Your task to perform on an android device: Go to battery settings Image 0: 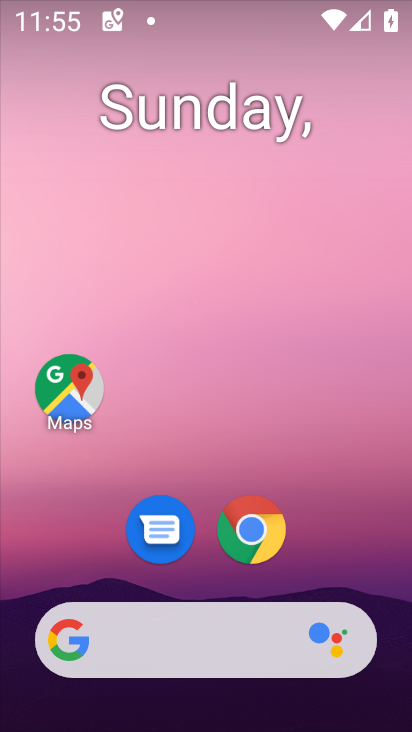
Step 0: drag from (388, 585) to (376, 268)
Your task to perform on an android device: Go to battery settings Image 1: 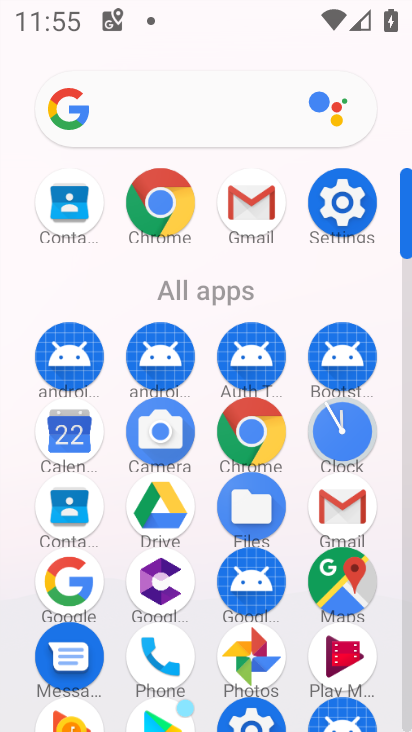
Step 1: click (363, 215)
Your task to perform on an android device: Go to battery settings Image 2: 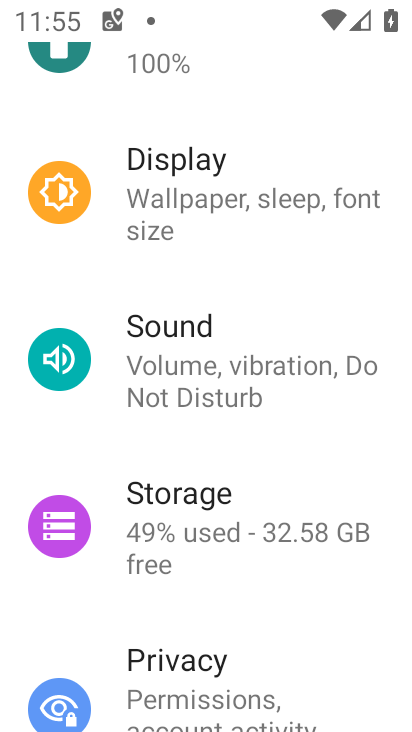
Step 2: drag from (365, 280) to (355, 403)
Your task to perform on an android device: Go to battery settings Image 3: 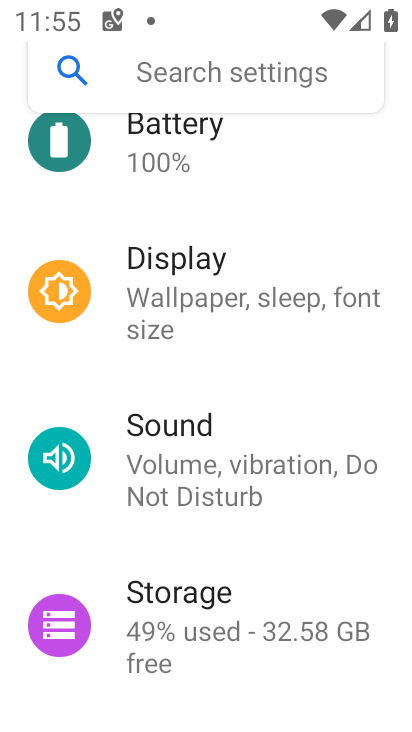
Step 3: drag from (372, 345) to (358, 450)
Your task to perform on an android device: Go to battery settings Image 4: 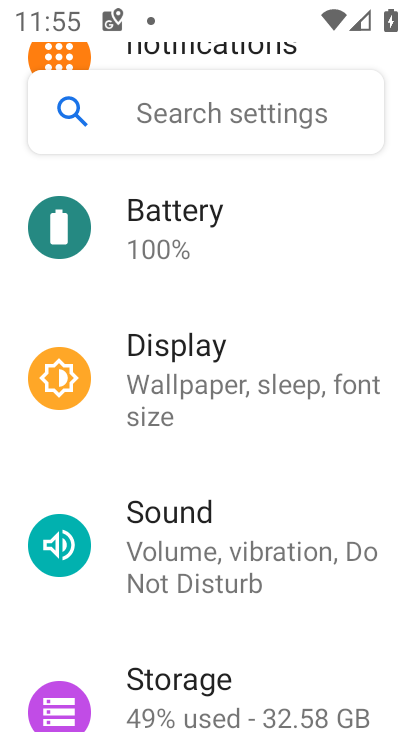
Step 4: drag from (354, 235) to (359, 375)
Your task to perform on an android device: Go to battery settings Image 5: 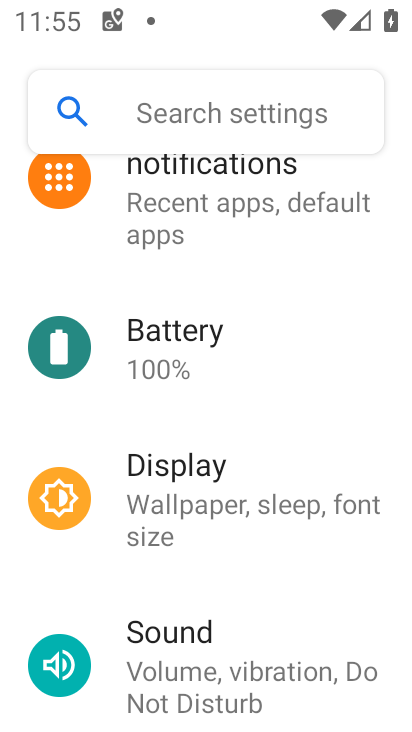
Step 5: drag from (371, 298) to (362, 391)
Your task to perform on an android device: Go to battery settings Image 6: 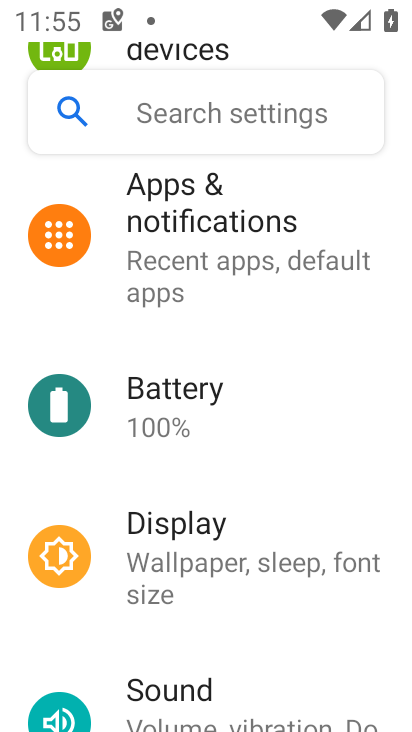
Step 6: drag from (360, 203) to (346, 398)
Your task to perform on an android device: Go to battery settings Image 7: 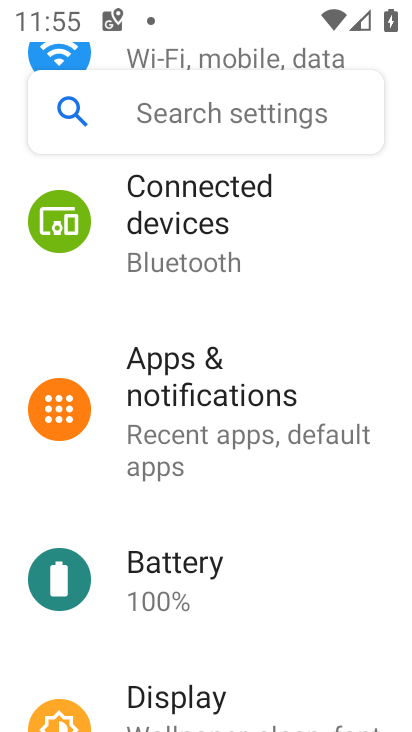
Step 7: drag from (349, 236) to (333, 441)
Your task to perform on an android device: Go to battery settings Image 8: 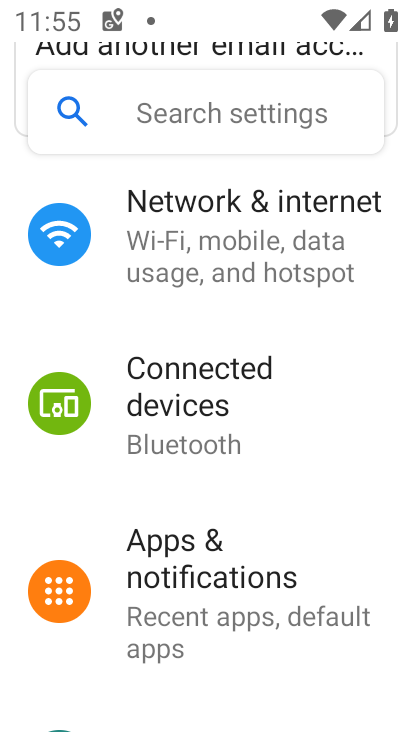
Step 8: drag from (331, 443) to (333, 281)
Your task to perform on an android device: Go to battery settings Image 9: 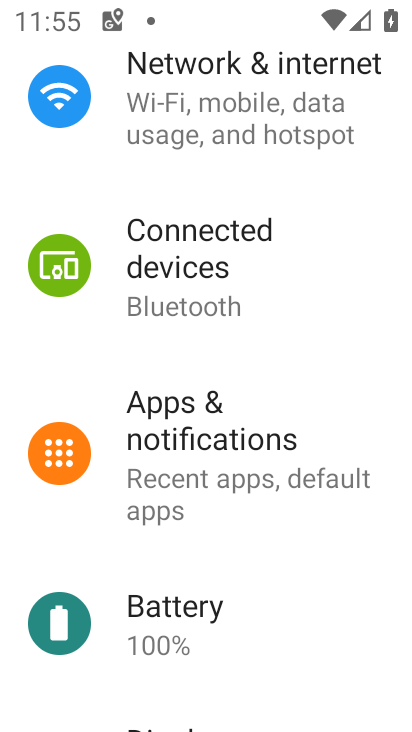
Step 9: drag from (338, 413) to (345, 291)
Your task to perform on an android device: Go to battery settings Image 10: 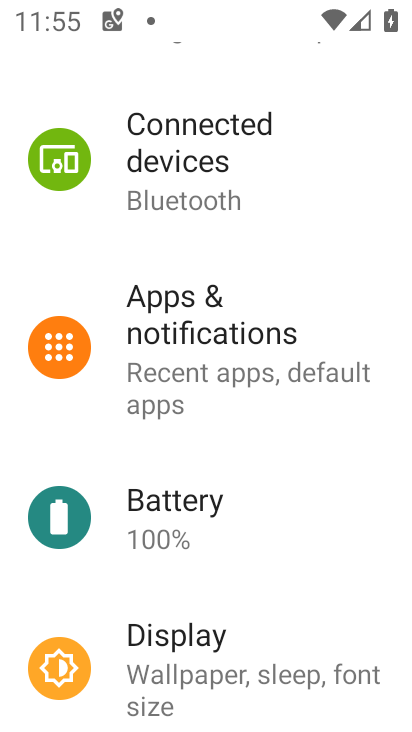
Step 10: drag from (319, 509) to (329, 359)
Your task to perform on an android device: Go to battery settings Image 11: 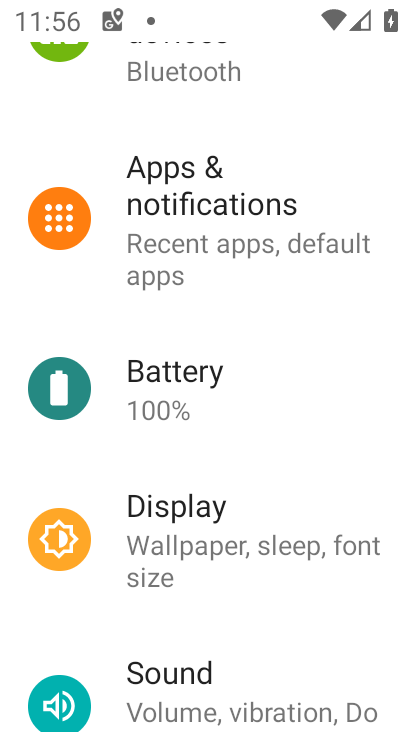
Step 11: click (202, 409)
Your task to perform on an android device: Go to battery settings Image 12: 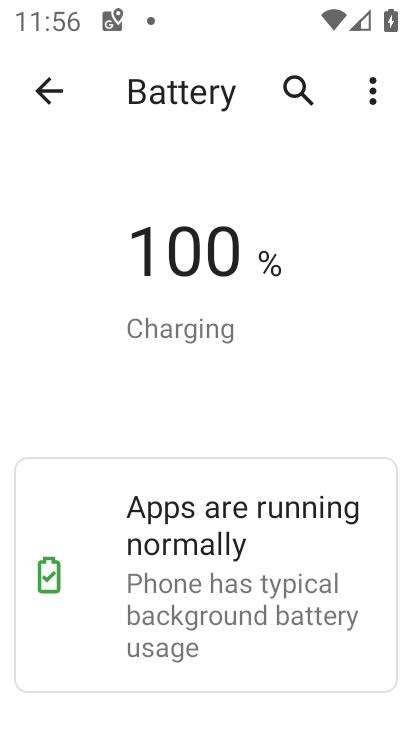
Step 12: task complete